Your task to perform on an android device: turn on sleep mode Image 0: 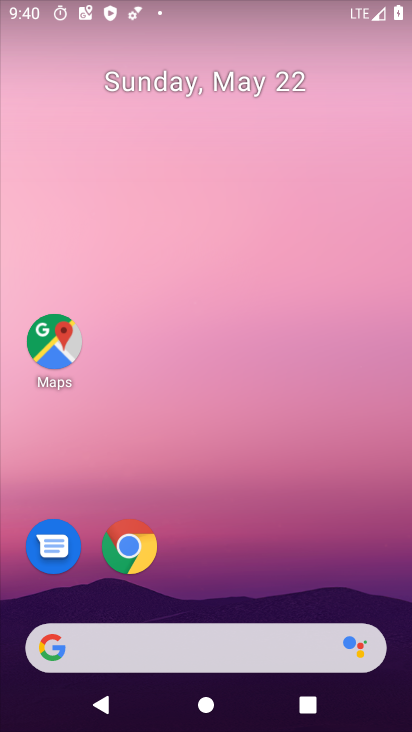
Step 0: drag from (211, 606) to (241, 58)
Your task to perform on an android device: turn on sleep mode Image 1: 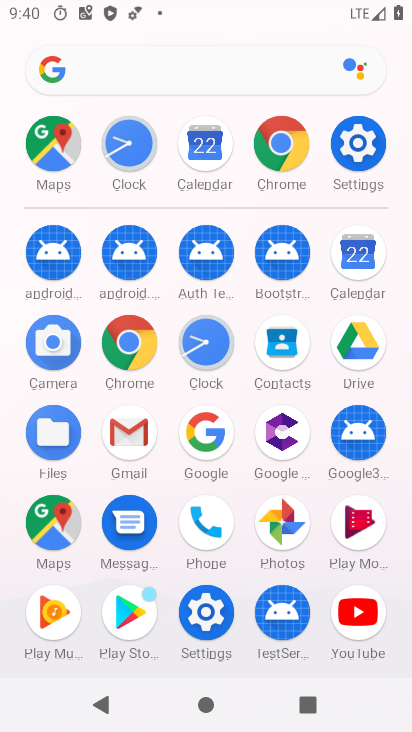
Step 1: click (364, 152)
Your task to perform on an android device: turn on sleep mode Image 2: 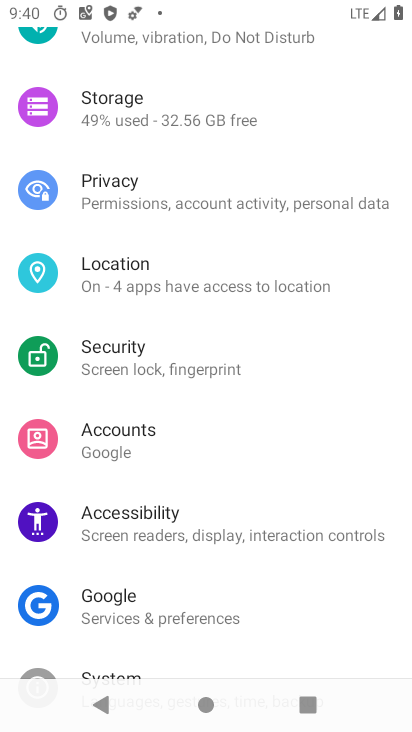
Step 2: drag from (177, 135) to (228, 690)
Your task to perform on an android device: turn on sleep mode Image 3: 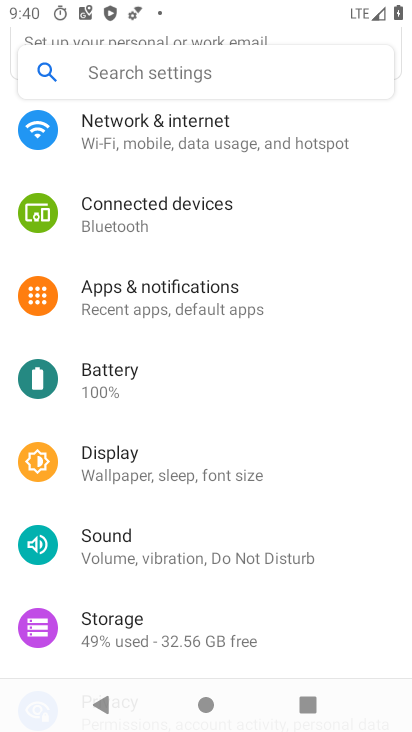
Step 3: click (146, 468)
Your task to perform on an android device: turn on sleep mode Image 4: 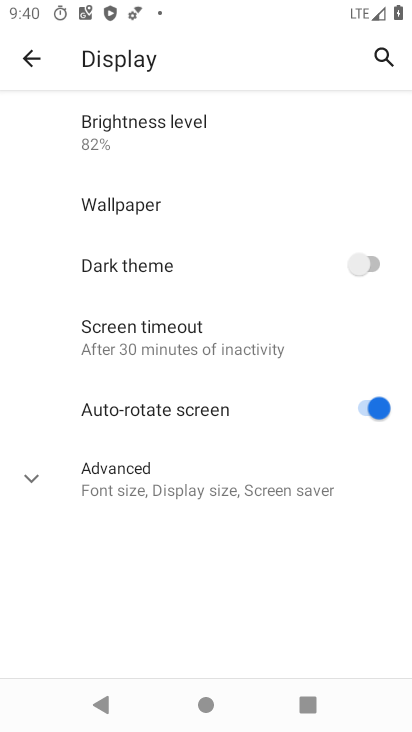
Step 4: click (195, 332)
Your task to perform on an android device: turn on sleep mode Image 5: 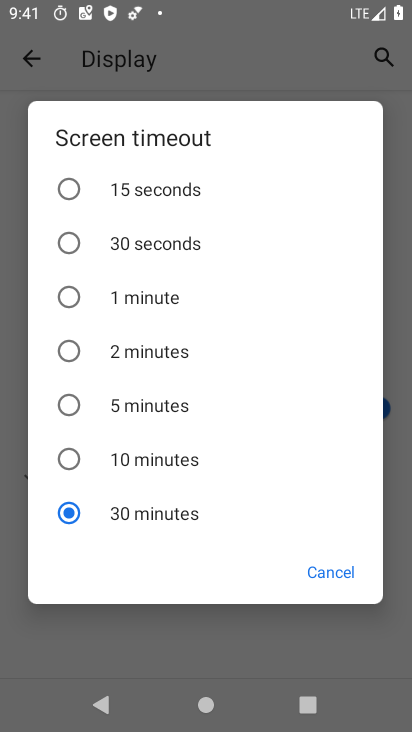
Step 5: click (101, 459)
Your task to perform on an android device: turn on sleep mode Image 6: 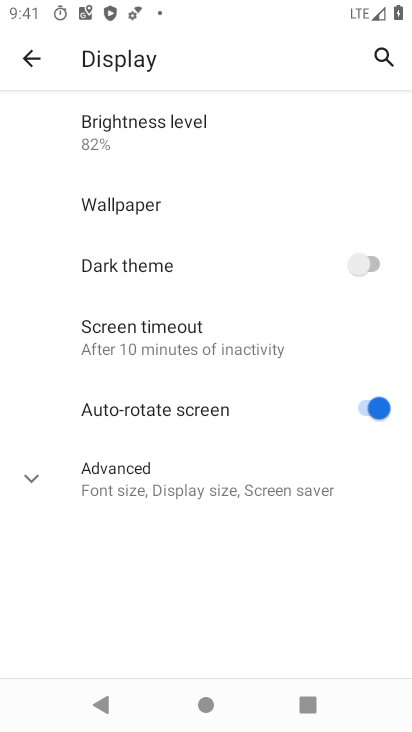
Step 6: task complete